Your task to perform on an android device: Open network settings Image 0: 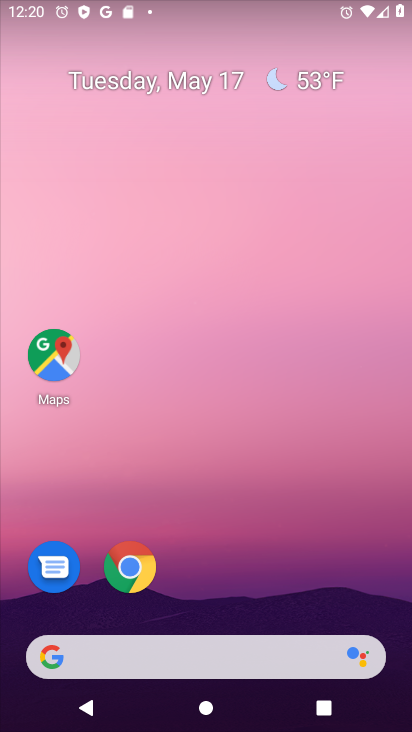
Step 0: drag from (371, 622) to (358, 164)
Your task to perform on an android device: Open network settings Image 1: 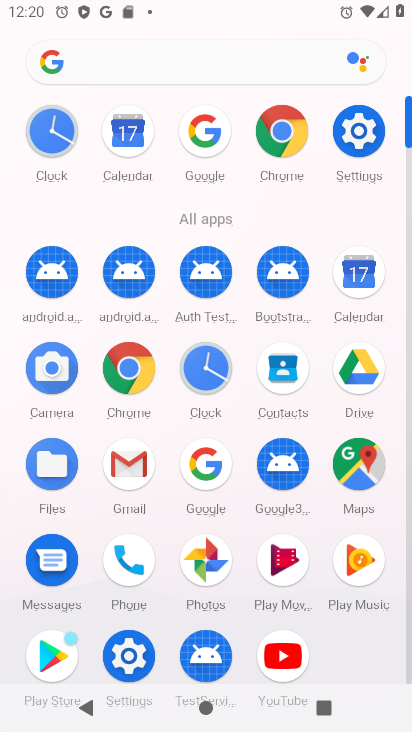
Step 1: click (354, 138)
Your task to perform on an android device: Open network settings Image 2: 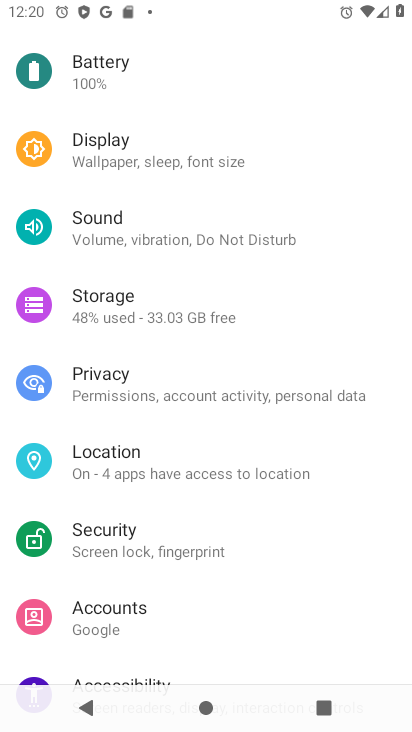
Step 2: drag from (283, 544) to (318, 411)
Your task to perform on an android device: Open network settings Image 3: 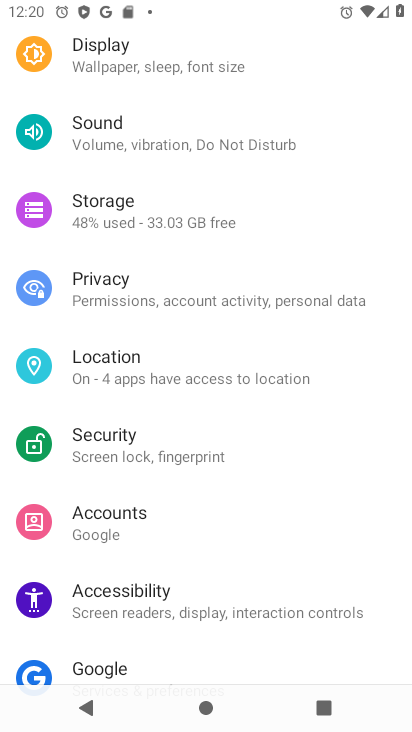
Step 3: drag from (308, 541) to (339, 465)
Your task to perform on an android device: Open network settings Image 4: 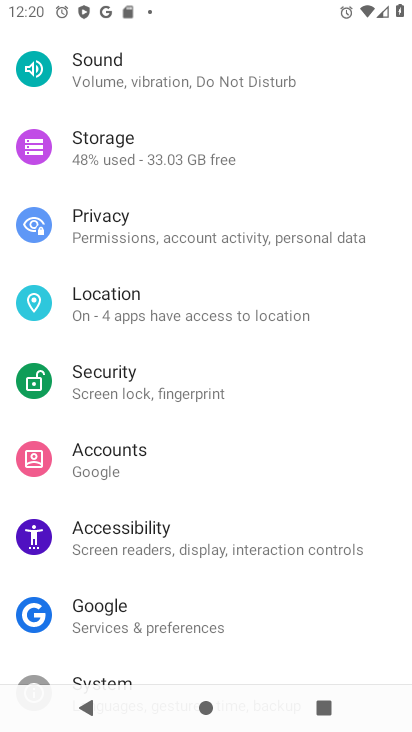
Step 4: drag from (305, 617) to (346, 406)
Your task to perform on an android device: Open network settings Image 5: 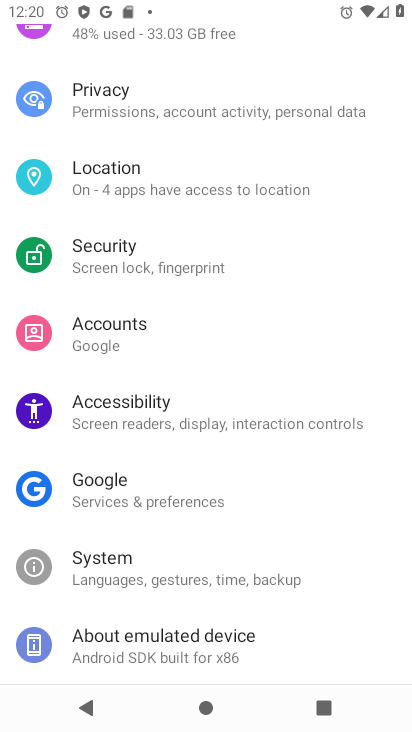
Step 5: drag from (329, 622) to (342, 484)
Your task to perform on an android device: Open network settings Image 6: 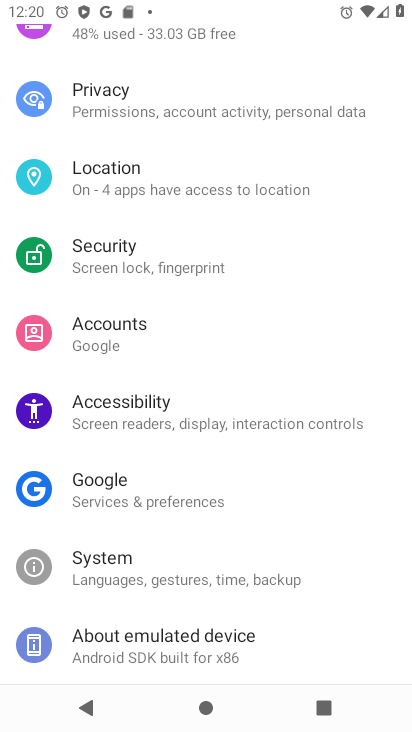
Step 6: drag from (345, 265) to (305, 441)
Your task to perform on an android device: Open network settings Image 7: 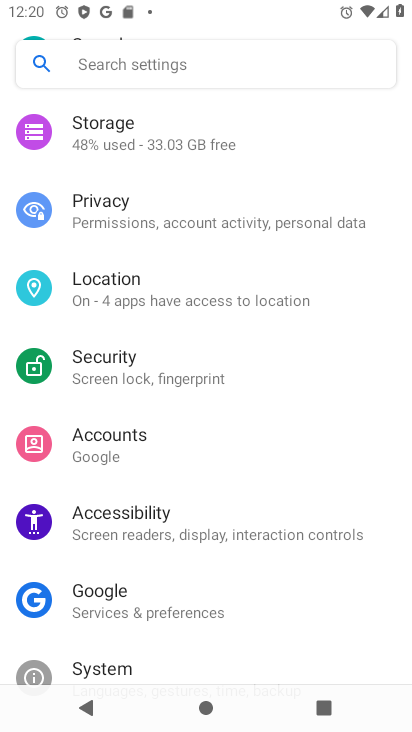
Step 7: drag from (332, 255) to (309, 411)
Your task to perform on an android device: Open network settings Image 8: 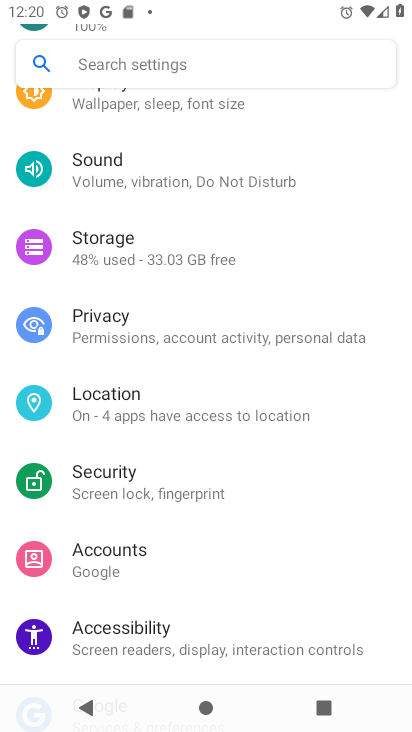
Step 8: drag from (340, 208) to (299, 416)
Your task to perform on an android device: Open network settings Image 9: 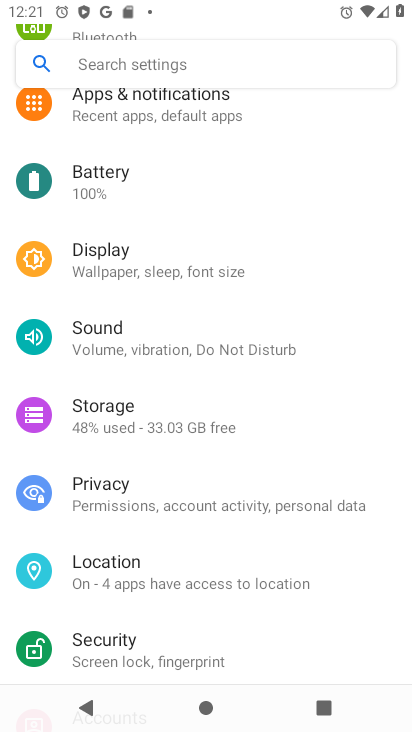
Step 9: drag from (319, 195) to (308, 372)
Your task to perform on an android device: Open network settings Image 10: 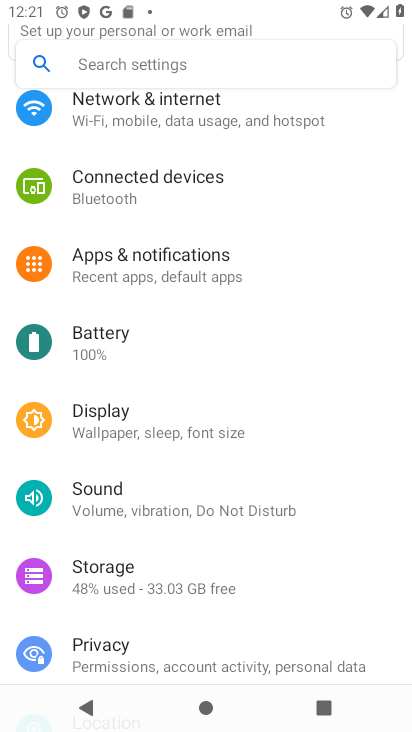
Step 10: drag from (311, 182) to (300, 340)
Your task to perform on an android device: Open network settings Image 11: 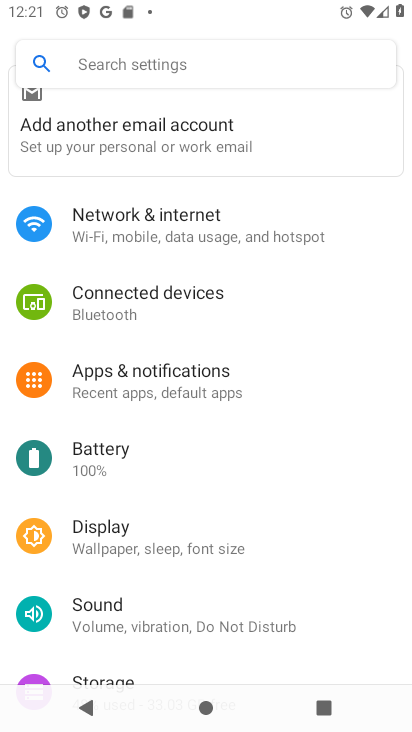
Step 11: drag from (332, 273) to (308, 397)
Your task to perform on an android device: Open network settings Image 12: 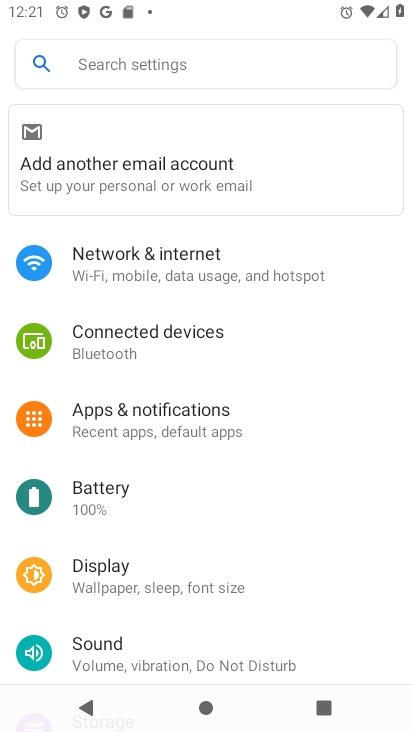
Step 12: click (267, 263)
Your task to perform on an android device: Open network settings Image 13: 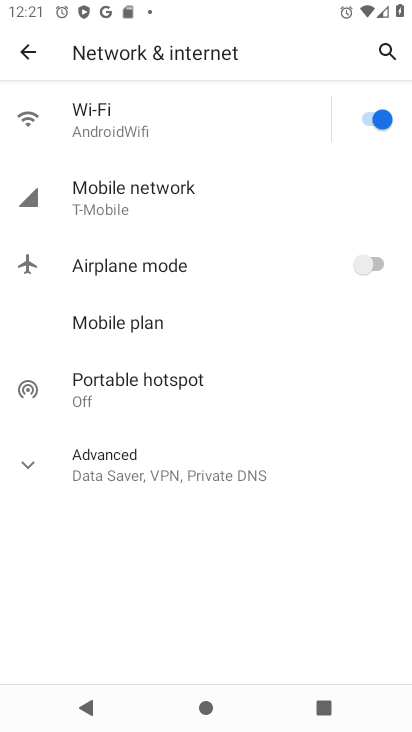
Step 13: task complete